Your task to perform on an android device: find which apps use the phone's location Image 0: 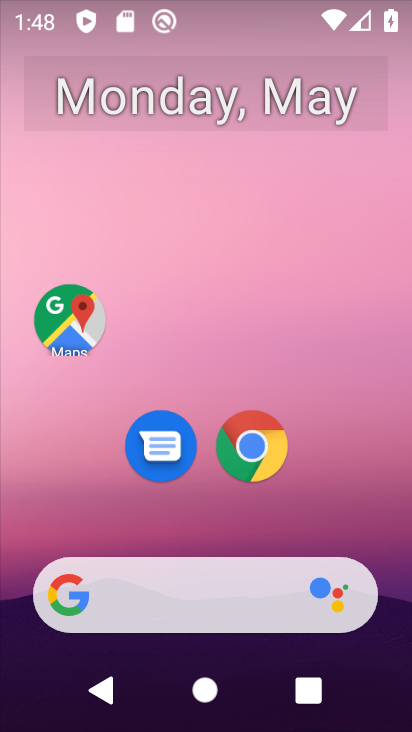
Step 0: drag from (321, 512) to (299, 140)
Your task to perform on an android device: find which apps use the phone's location Image 1: 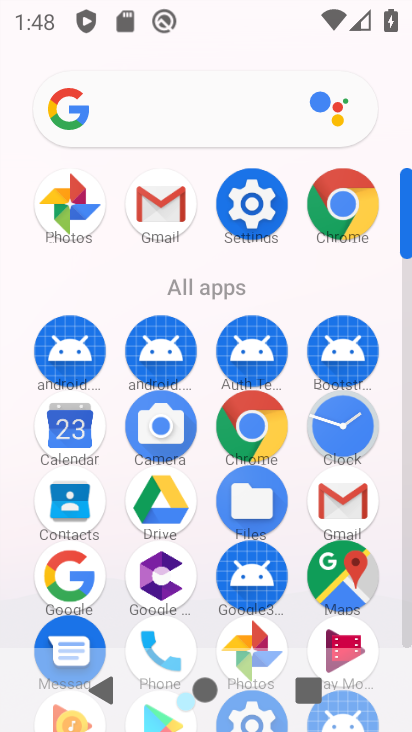
Step 1: click (248, 204)
Your task to perform on an android device: find which apps use the phone's location Image 2: 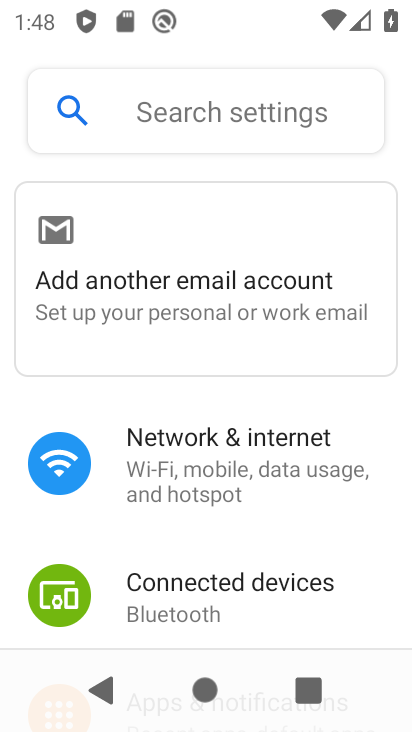
Step 2: drag from (254, 458) to (268, 209)
Your task to perform on an android device: find which apps use the phone's location Image 3: 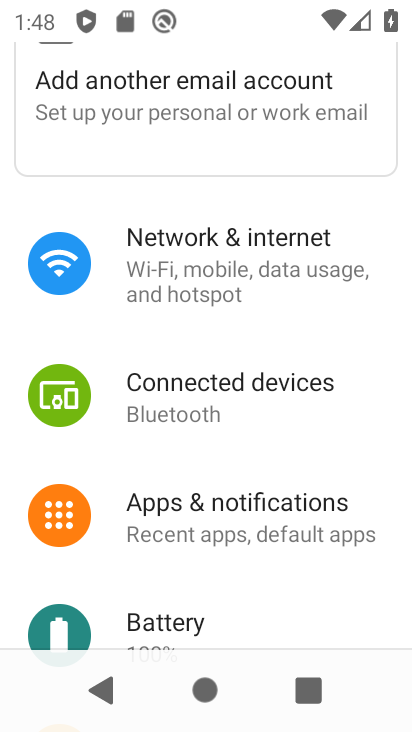
Step 3: drag from (265, 611) to (282, 259)
Your task to perform on an android device: find which apps use the phone's location Image 4: 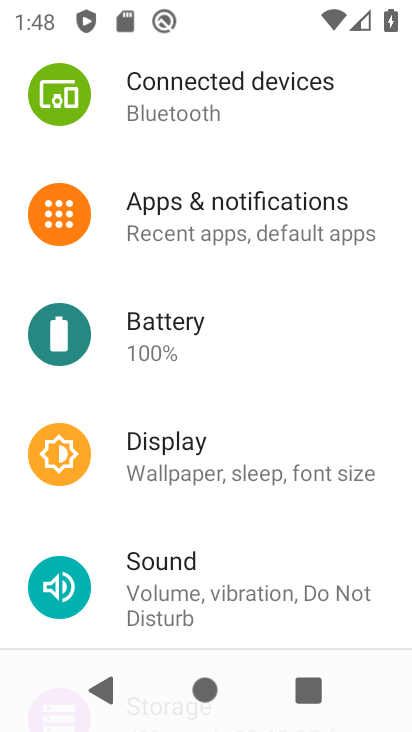
Step 4: drag from (254, 467) to (248, 177)
Your task to perform on an android device: find which apps use the phone's location Image 5: 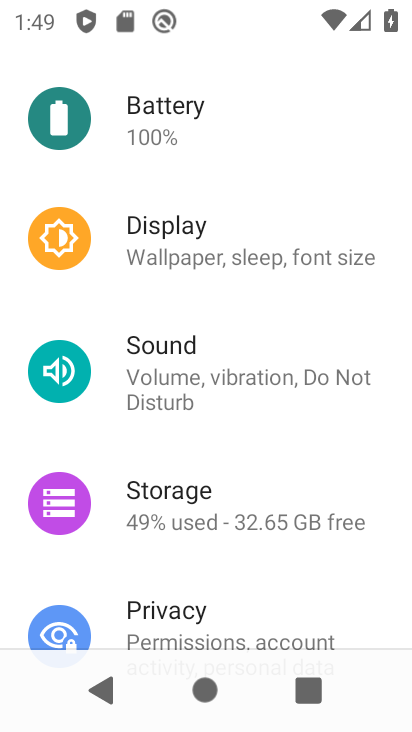
Step 5: drag from (212, 504) to (212, 196)
Your task to perform on an android device: find which apps use the phone's location Image 6: 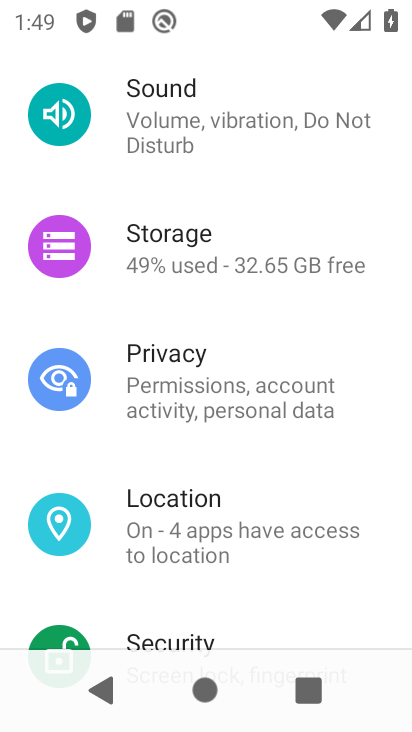
Step 6: click (224, 497)
Your task to perform on an android device: find which apps use the phone's location Image 7: 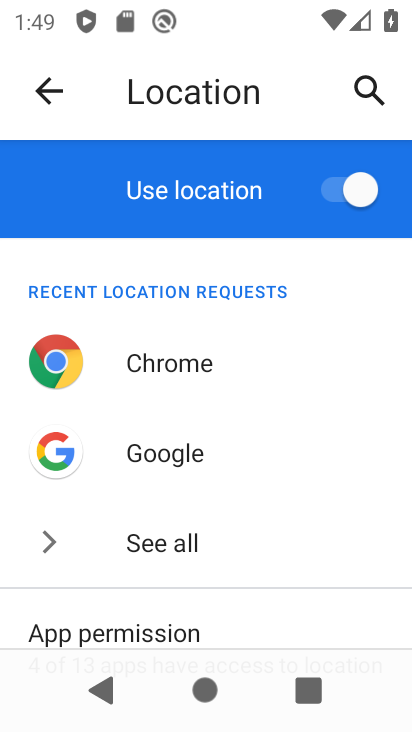
Step 7: task complete